Your task to perform on an android device: Go to network settings Image 0: 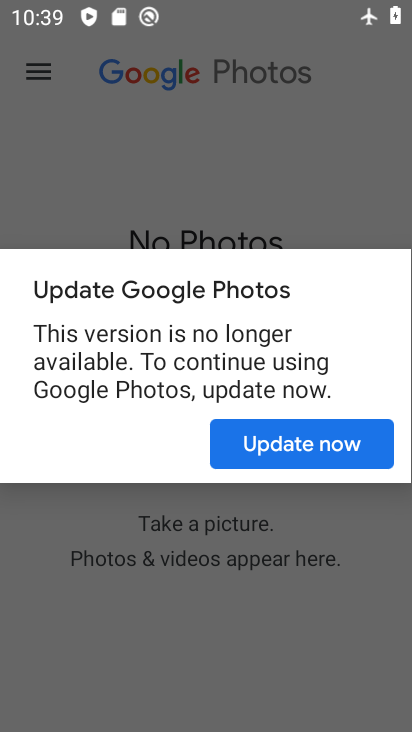
Step 0: press home button
Your task to perform on an android device: Go to network settings Image 1: 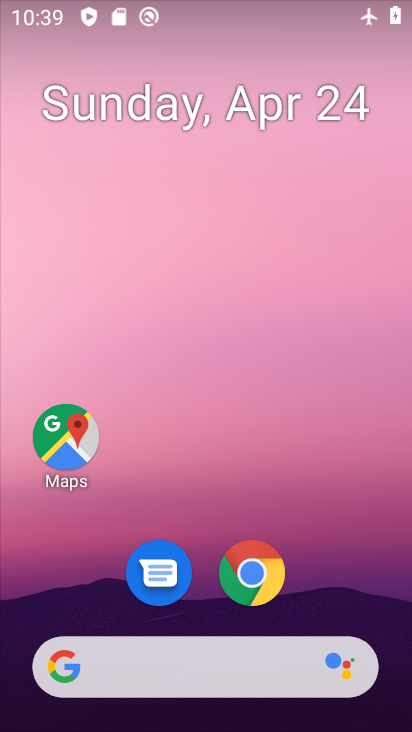
Step 1: drag from (325, 595) to (320, 71)
Your task to perform on an android device: Go to network settings Image 2: 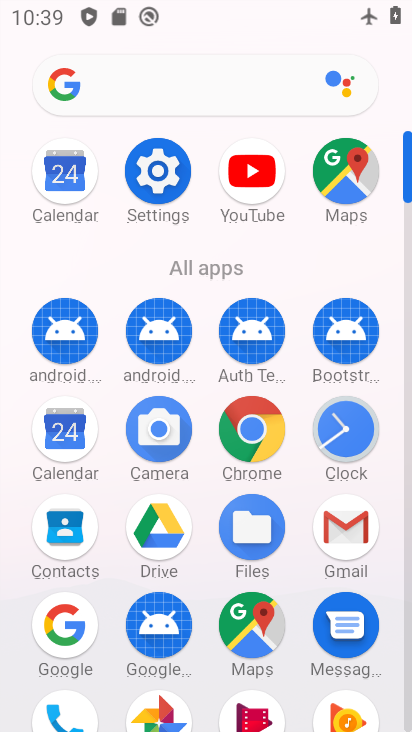
Step 2: click (154, 159)
Your task to perform on an android device: Go to network settings Image 3: 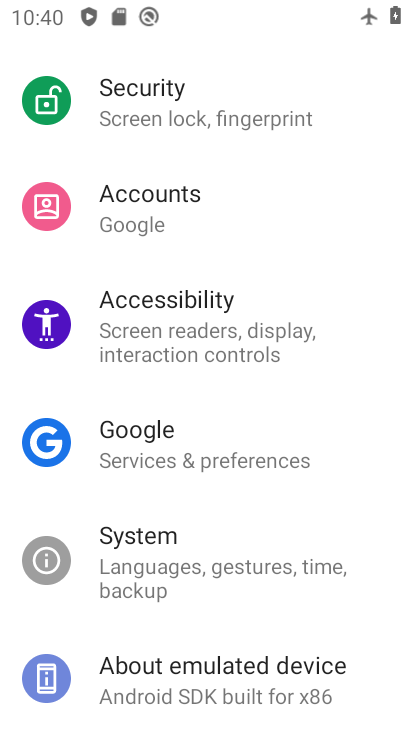
Step 3: drag from (147, 208) to (192, 304)
Your task to perform on an android device: Go to network settings Image 4: 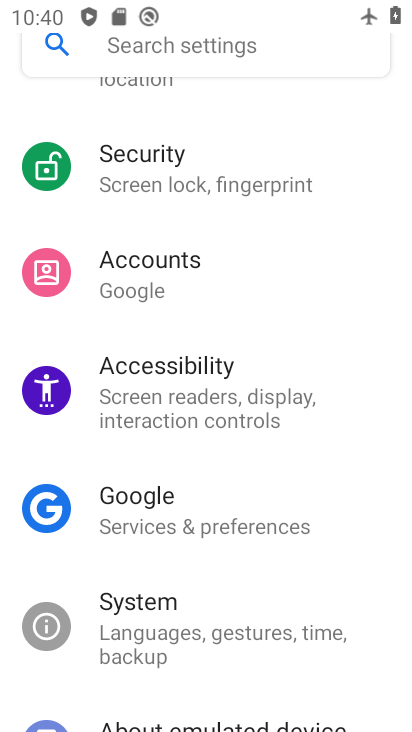
Step 4: drag from (211, 234) to (258, 336)
Your task to perform on an android device: Go to network settings Image 5: 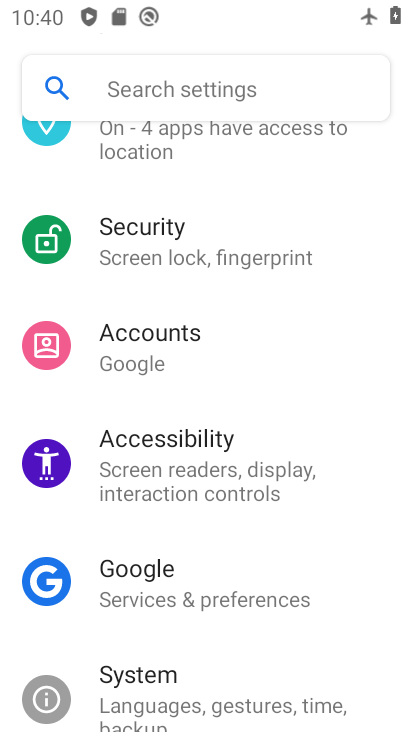
Step 5: drag from (231, 264) to (253, 350)
Your task to perform on an android device: Go to network settings Image 6: 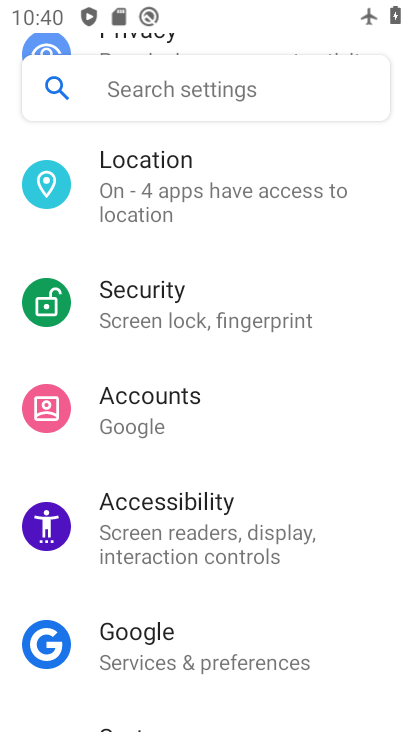
Step 6: drag from (242, 252) to (282, 361)
Your task to perform on an android device: Go to network settings Image 7: 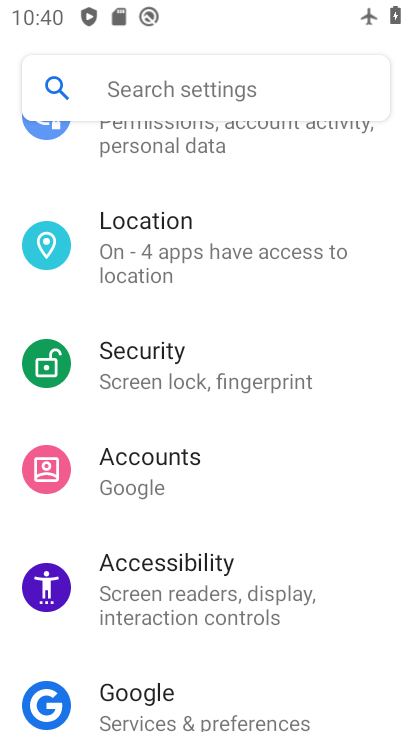
Step 7: drag from (277, 303) to (297, 358)
Your task to perform on an android device: Go to network settings Image 8: 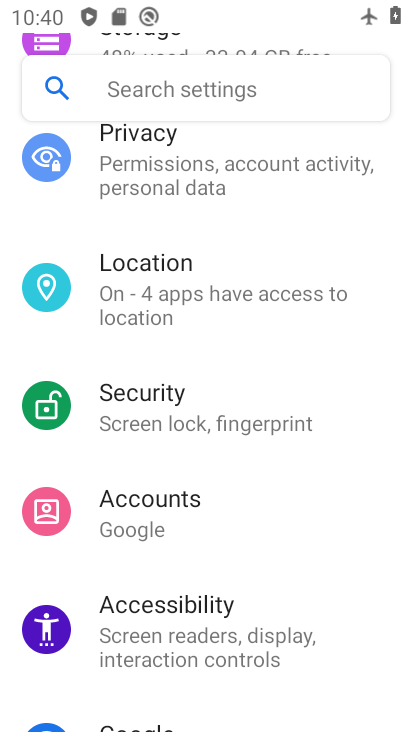
Step 8: drag from (277, 274) to (303, 395)
Your task to perform on an android device: Go to network settings Image 9: 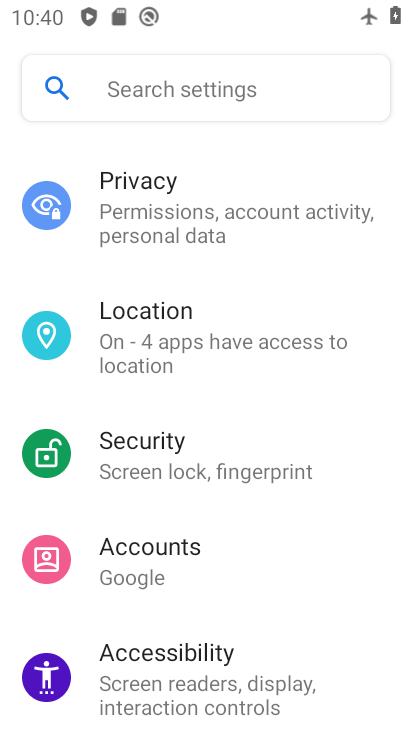
Step 9: drag from (286, 284) to (322, 373)
Your task to perform on an android device: Go to network settings Image 10: 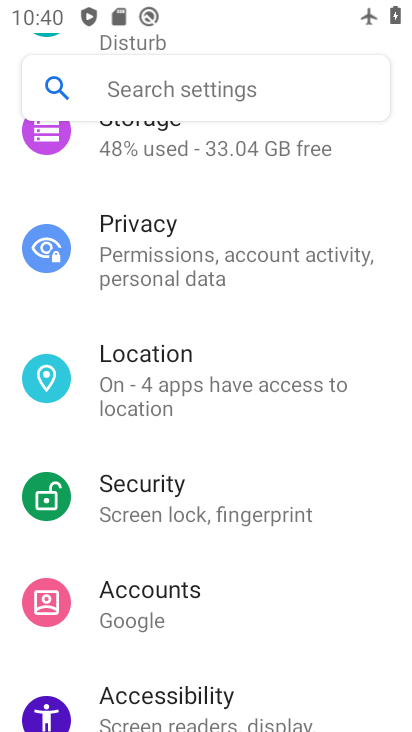
Step 10: drag from (271, 232) to (316, 307)
Your task to perform on an android device: Go to network settings Image 11: 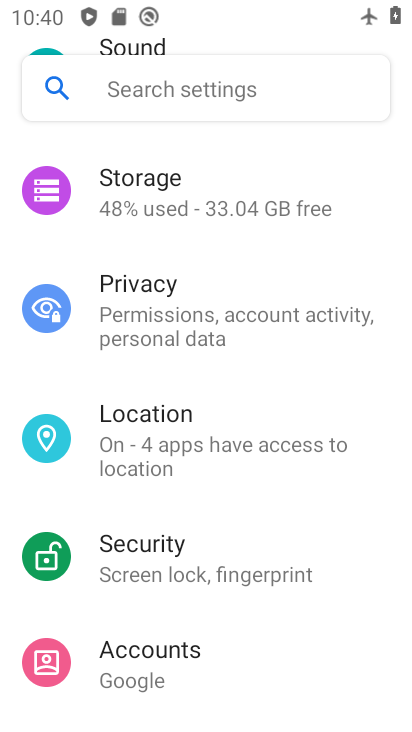
Step 11: drag from (310, 281) to (338, 348)
Your task to perform on an android device: Go to network settings Image 12: 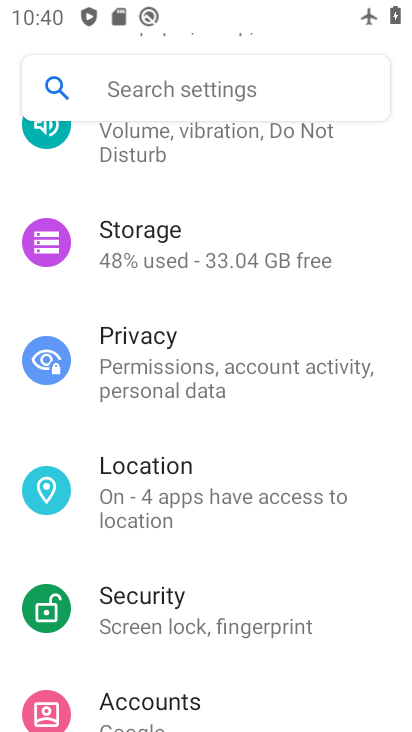
Step 12: drag from (336, 293) to (356, 352)
Your task to perform on an android device: Go to network settings Image 13: 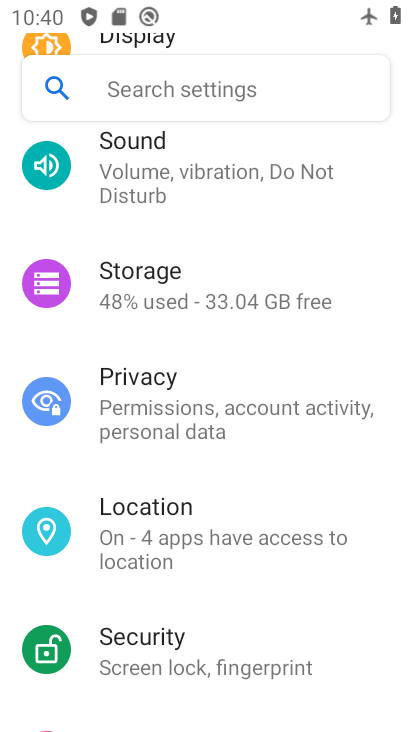
Step 13: drag from (345, 300) to (363, 373)
Your task to perform on an android device: Go to network settings Image 14: 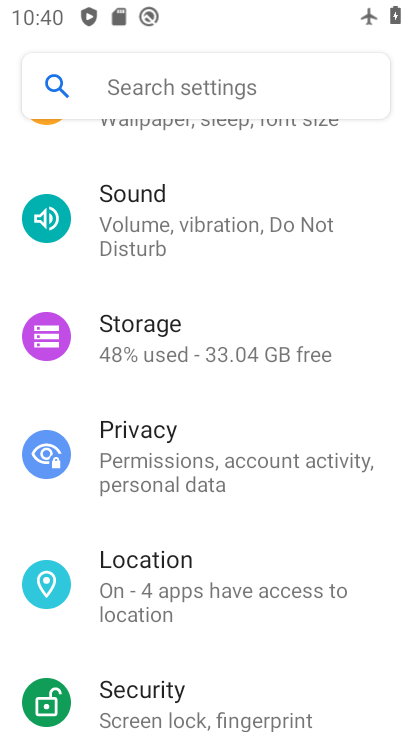
Step 14: drag from (340, 309) to (355, 366)
Your task to perform on an android device: Go to network settings Image 15: 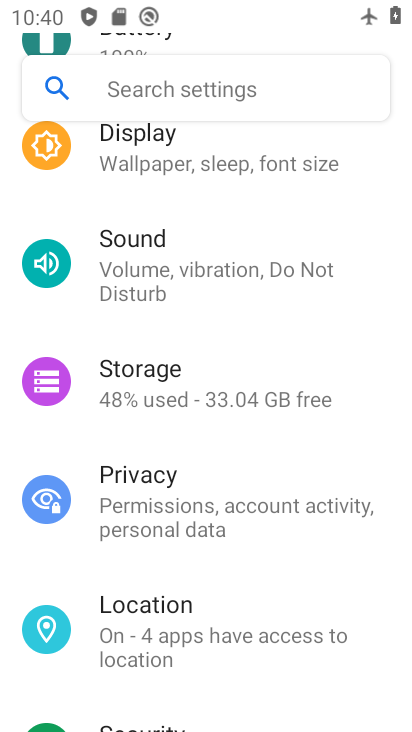
Step 15: drag from (325, 274) to (344, 367)
Your task to perform on an android device: Go to network settings Image 16: 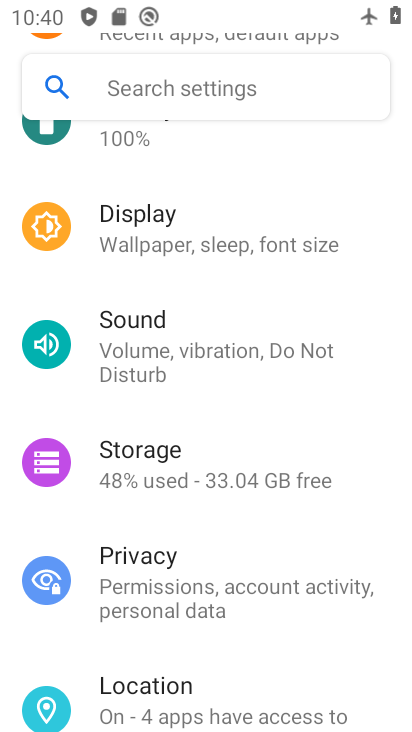
Step 16: drag from (312, 308) to (321, 388)
Your task to perform on an android device: Go to network settings Image 17: 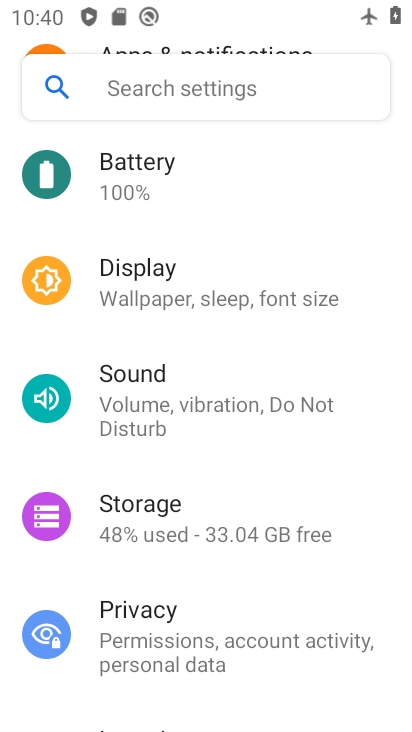
Step 17: drag from (290, 336) to (304, 383)
Your task to perform on an android device: Go to network settings Image 18: 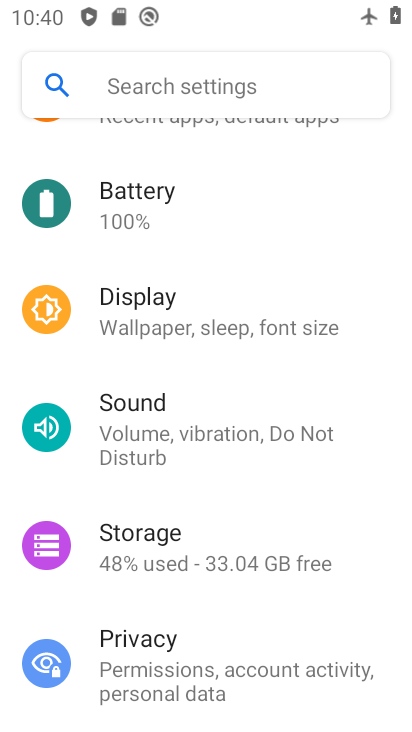
Step 18: drag from (285, 329) to (310, 397)
Your task to perform on an android device: Go to network settings Image 19: 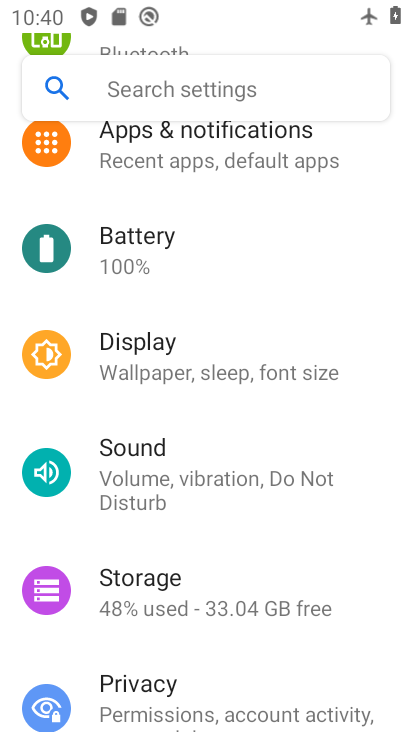
Step 19: drag from (282, 298) to (301, 351)
Your task to perform on an android device: Go to network settings Image 20: 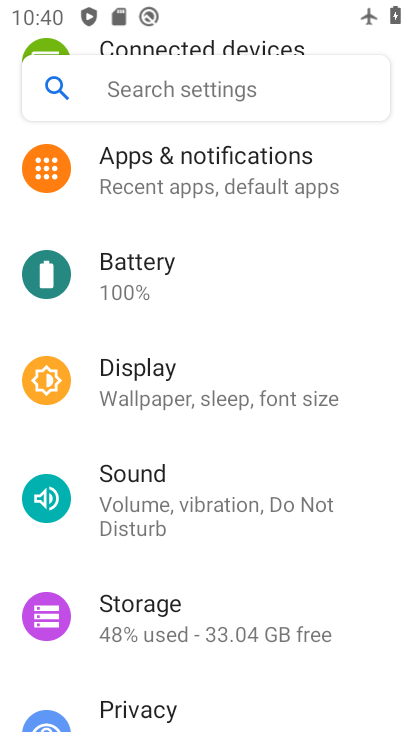
Step 20: drag from (303, 296) to (316, 365)
Your task to perform on an android device: Go to network settings Image 21: 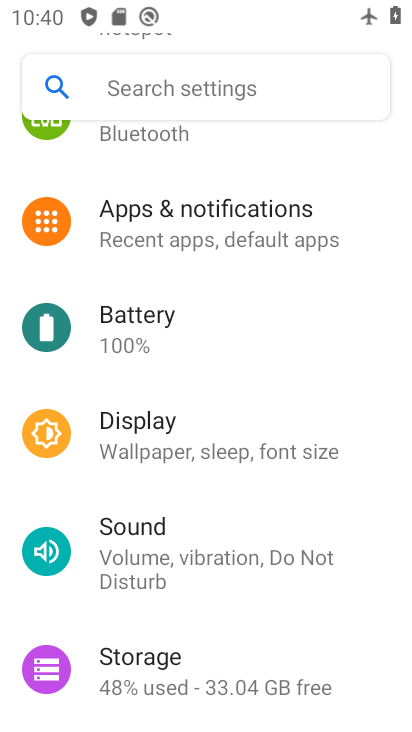
Step 21: drag from (298, 303) to (311, 349)
Your task to perform on an android device: Go to network settings Image 22: 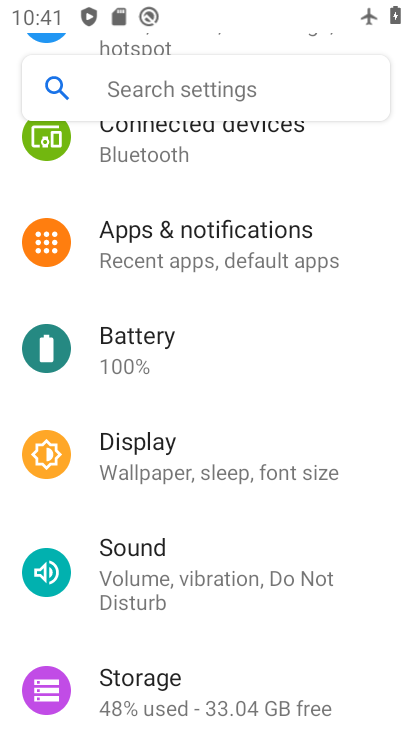
Step 22: drag from (292, 287) to (293, 380)
Your task to perform on an android device: Go to network settings Image 23: 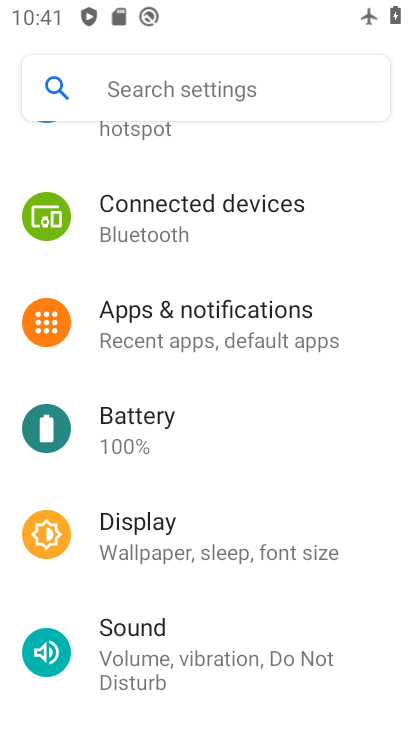
Step 23: drag from (266, 306) to (266, 369)
Your task to perform on an android device: Go to network settings Image 24: 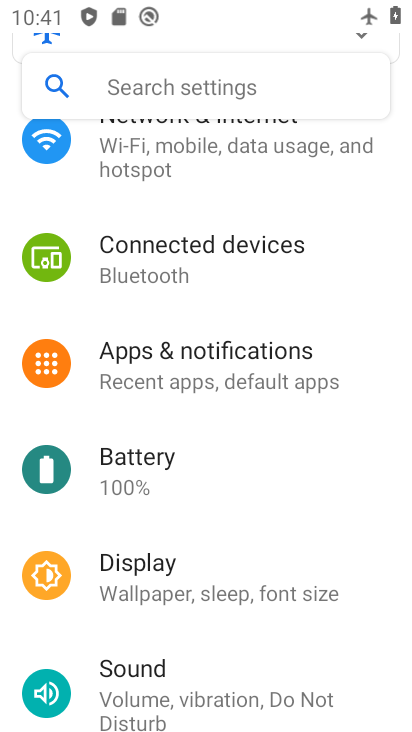
Step 24: drag from (244, 325) to (252, 390)
Your task to perform on an android device: Go to network settings Image 25: 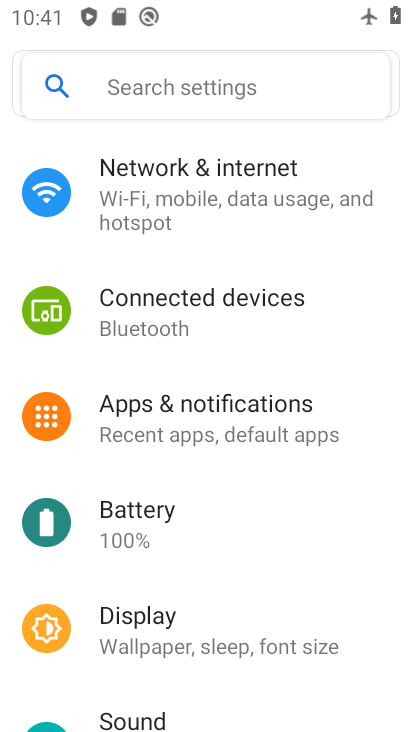
Step 25: drag from (228, 332) to (245, 402)
Your task to perform on an android device: Go to network settings Image 26: 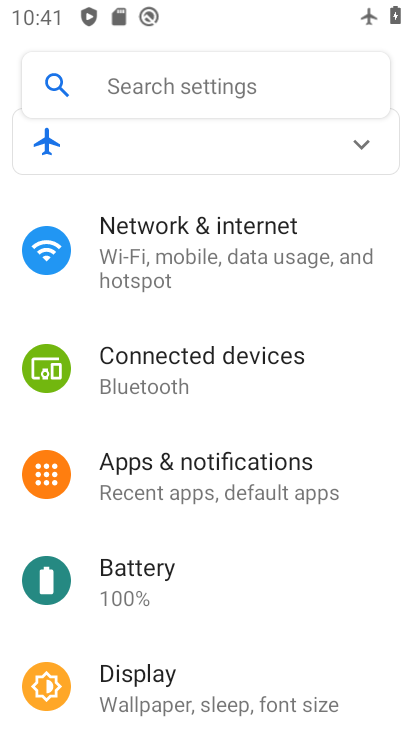
Step 26: click (221, 272)
Your task to perform on an android device: Go to network settings Image 27: 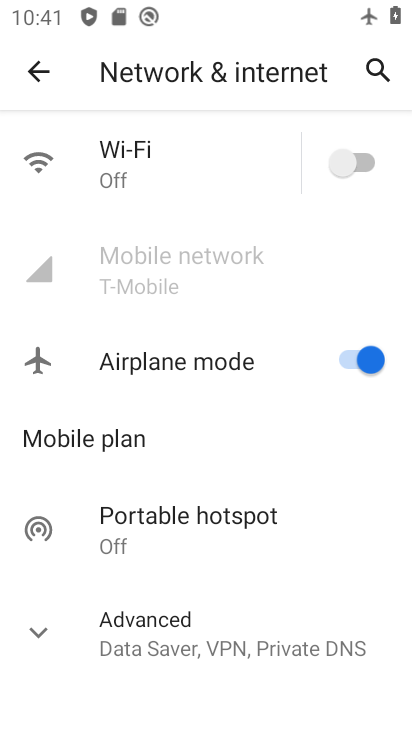
Step 27: task complete